Your task to perform on an android device: open app "DoorDash - Dasher" (install if not already installed) Image 0: 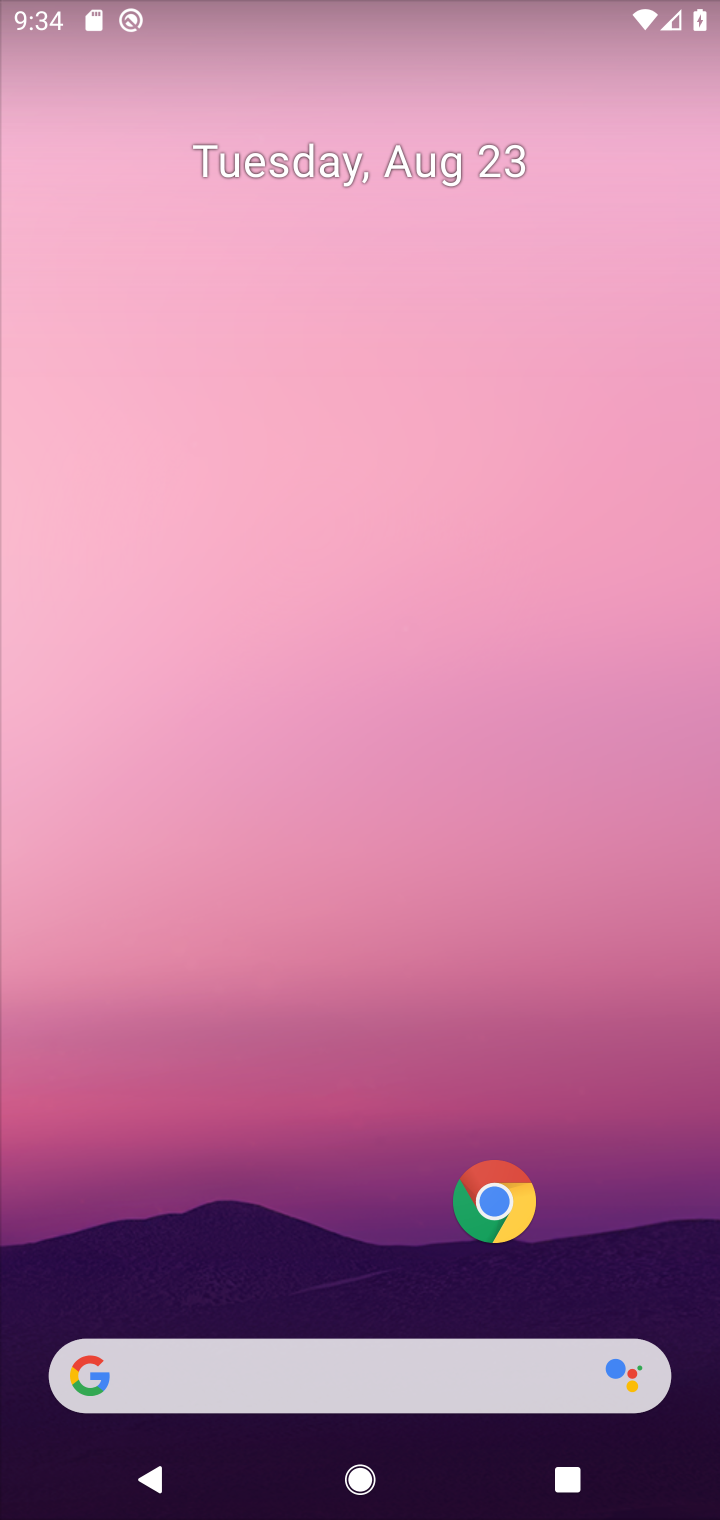
Step 0: drag from (225, 1292) to (229, 782)
Your task to perform on an android device: open app "DoorDash - Dasher" (install if not already installed) Image 1: 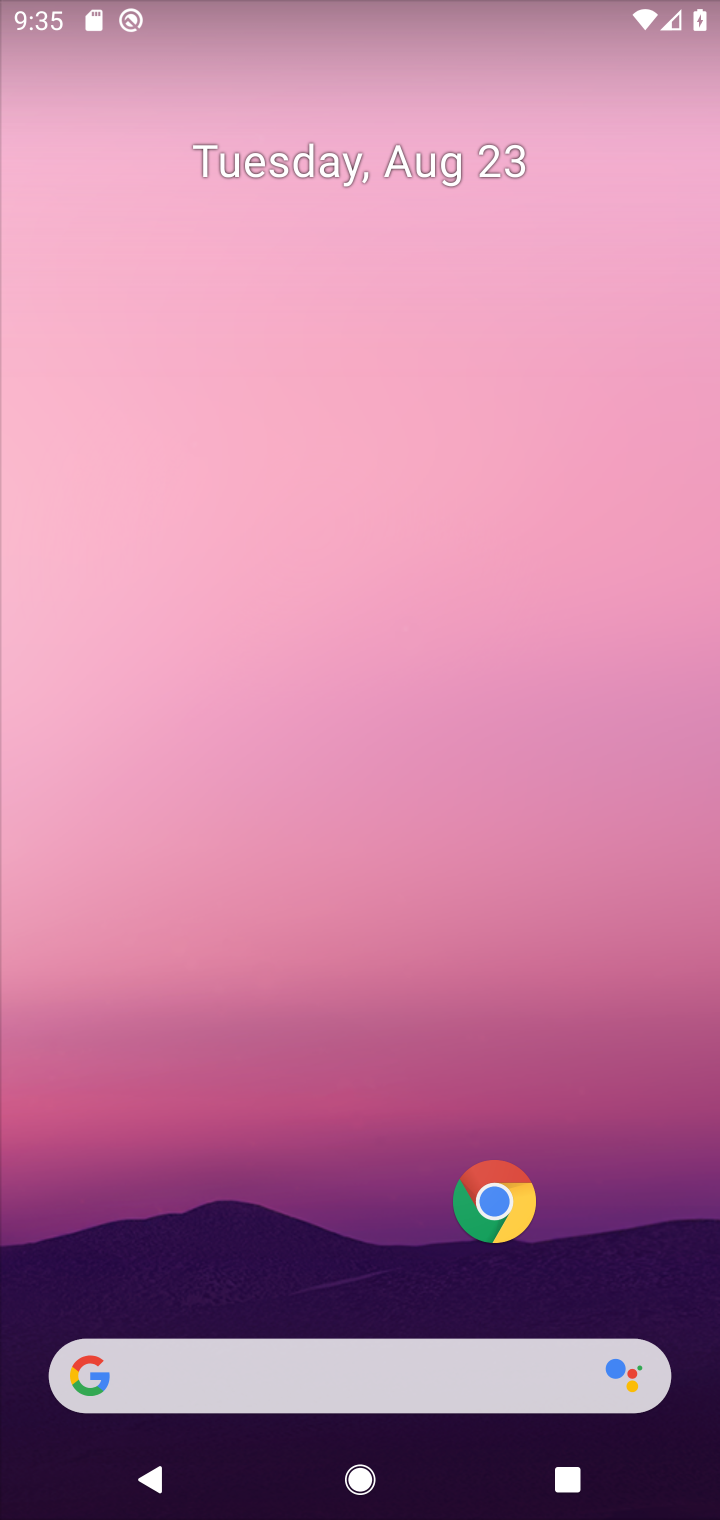
Step 1: drag from (313, 1293) to (337, 678)
Your task to perform on an android device: open app "DoorDash - Dasher" (install if not already installed) Image 2: 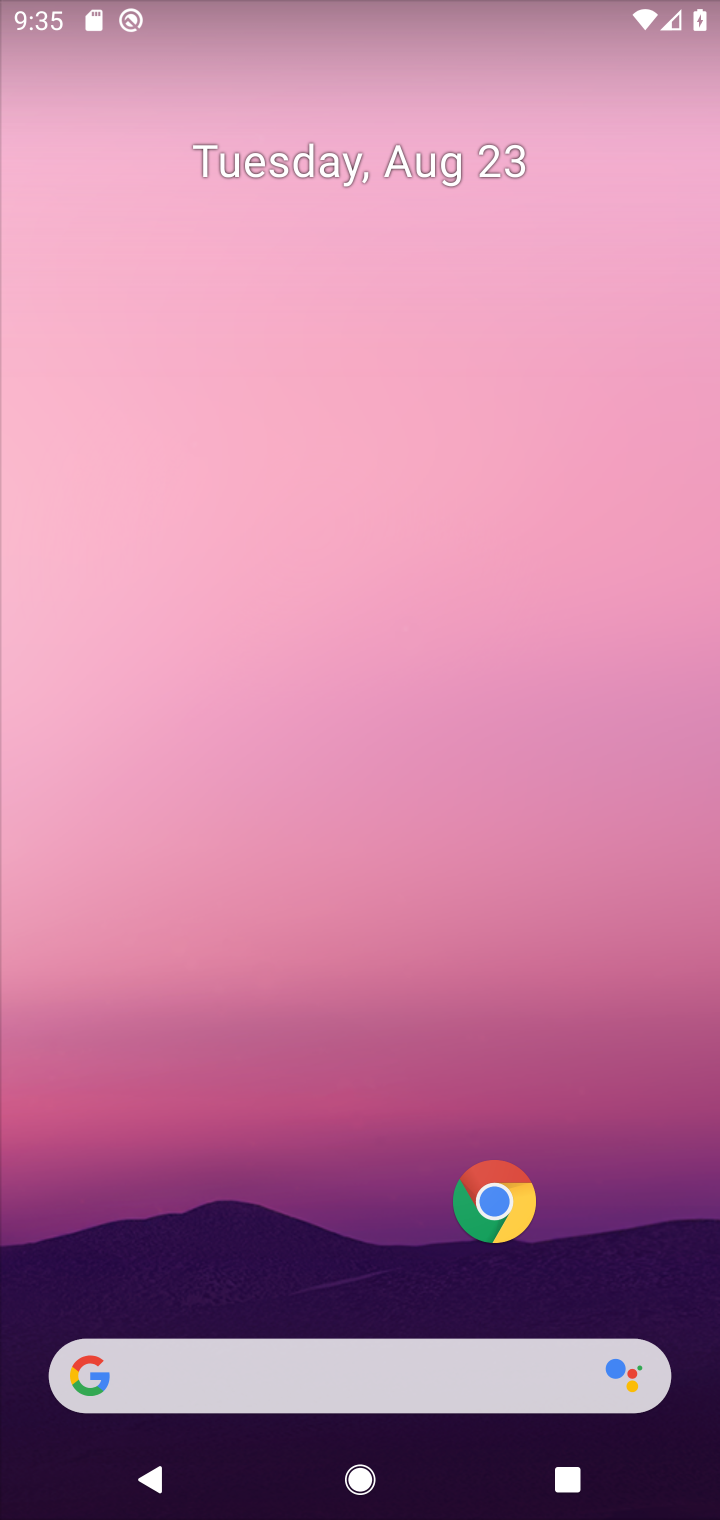
Step 2: drag from (315, 1346) to (346, 598)
Your task to perform on an android device: open app "DoorDash - Dasher" (install if not already installed) Image 3: 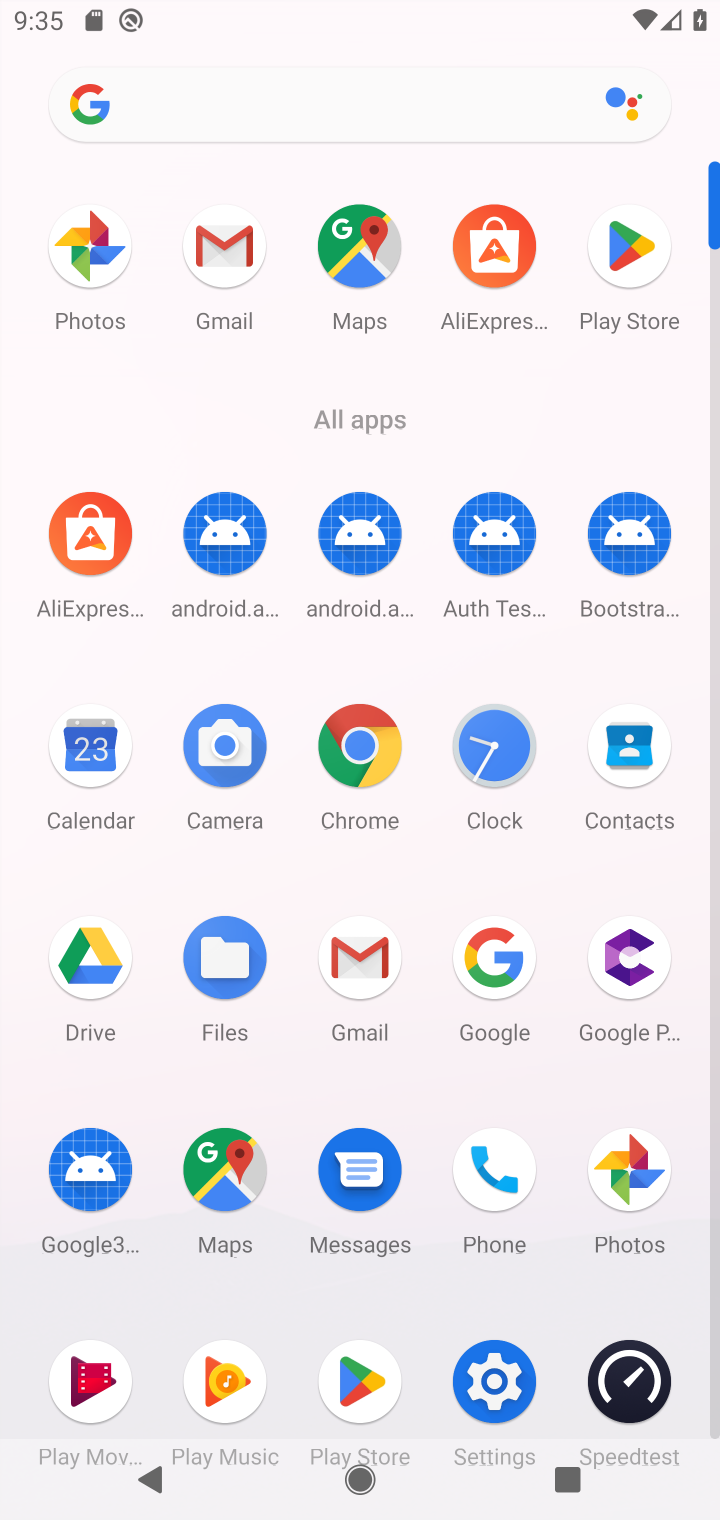
Step 3: click (636, 238)
Your task to perform on an android device: open app "DoorDash - Dasher" (install if not already installed) Image 4: 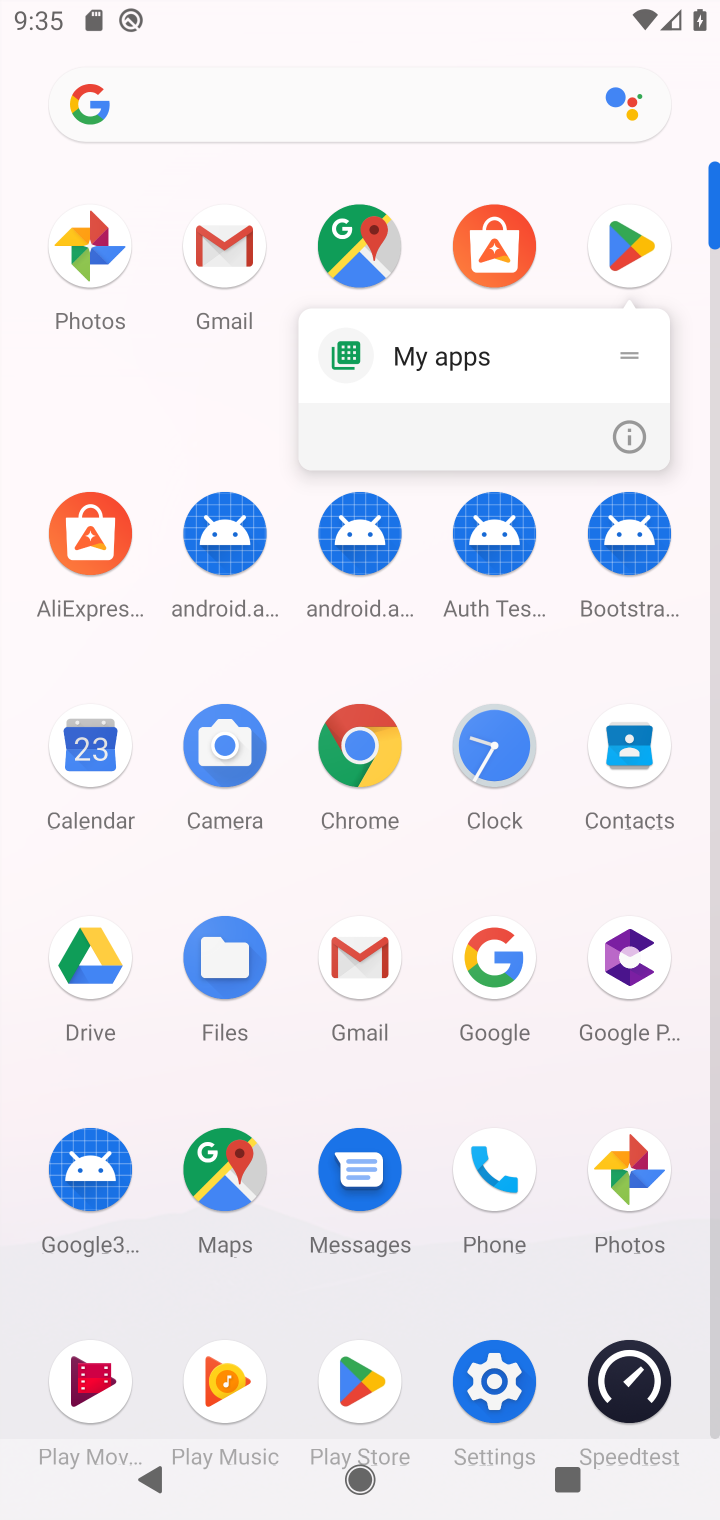
Step 4: click (636, 238)
Your task to perform on an android device: open app "DoorDash - Dasher" (install if not already installed) Image 5: 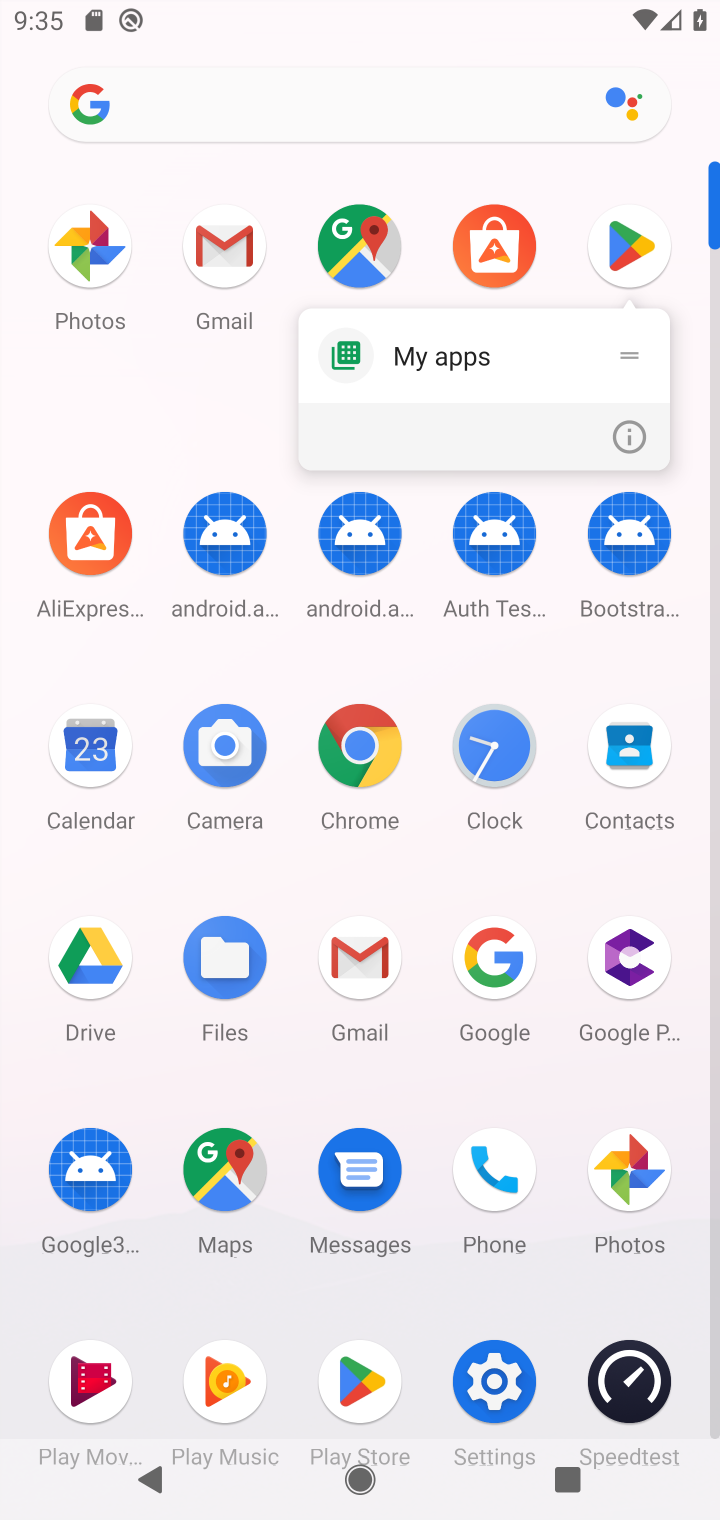
Step 5: click (636, 238)
Your task to perform on an android device: open app "DoorDash - Dasher" (install if not already installed) Image 6: 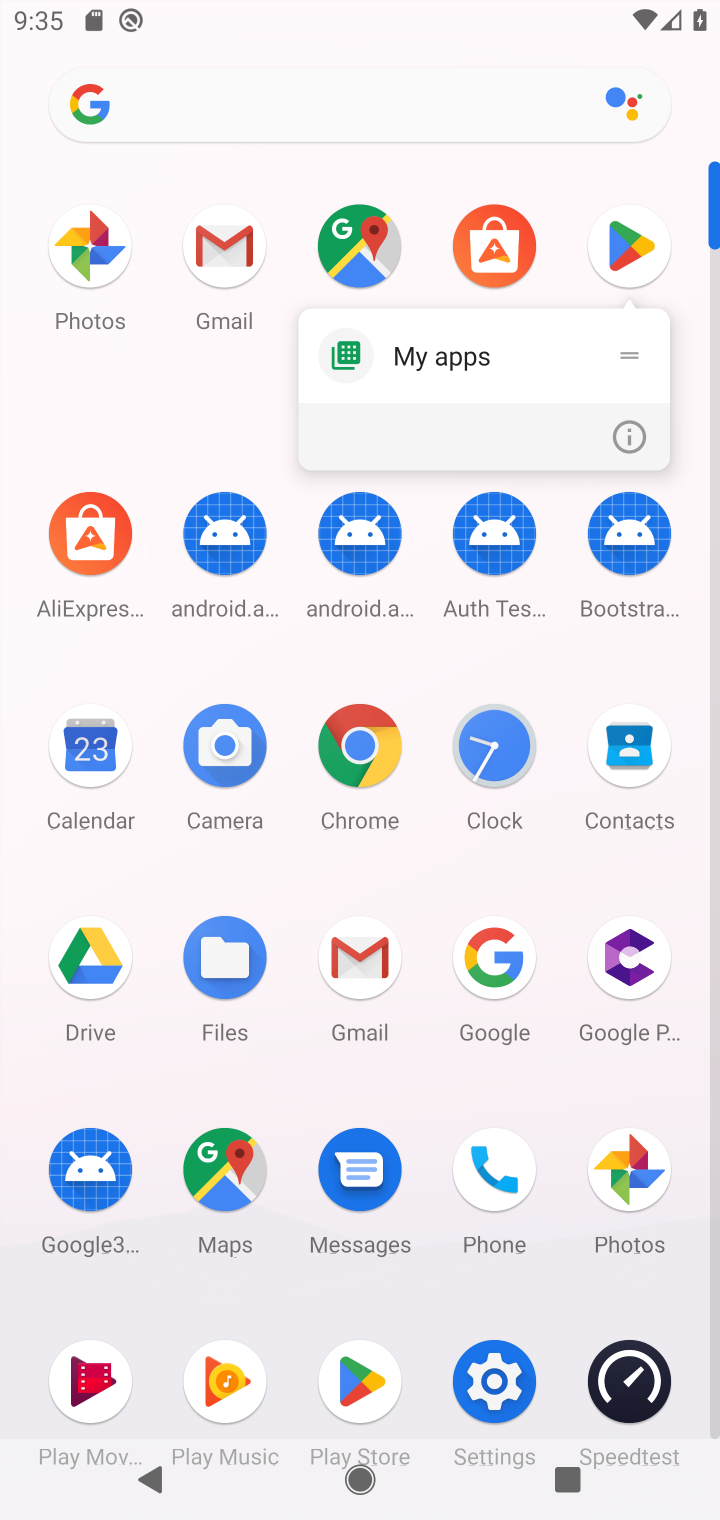
Step 6: click (601, 231)
Your task to perform on an android device: open app "DoorDash - Dasher" (install if not already installed) Image 7: 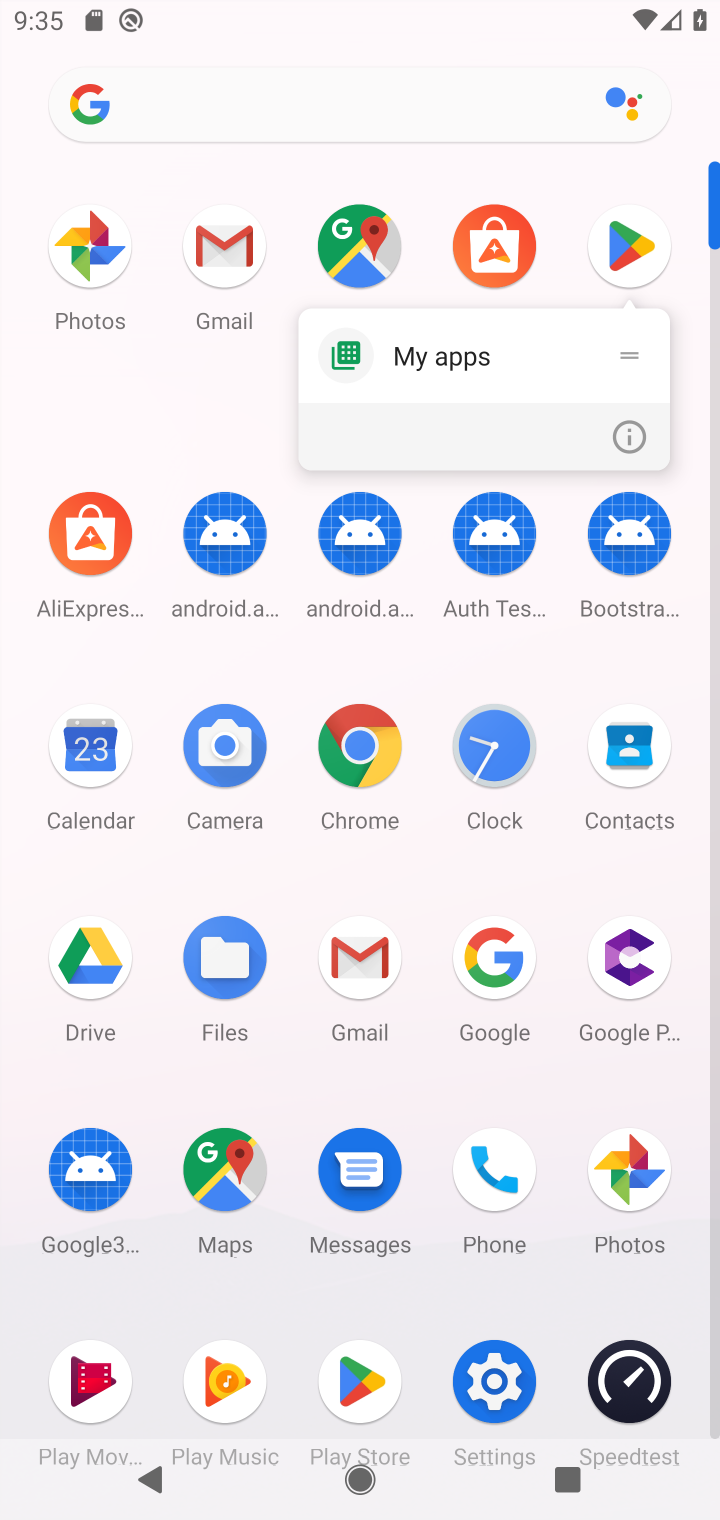
Step 7: click (598, 232)
Your task to perform on an android device: open app "DoorDash - Dasher" (install if not already installed) Image 8: 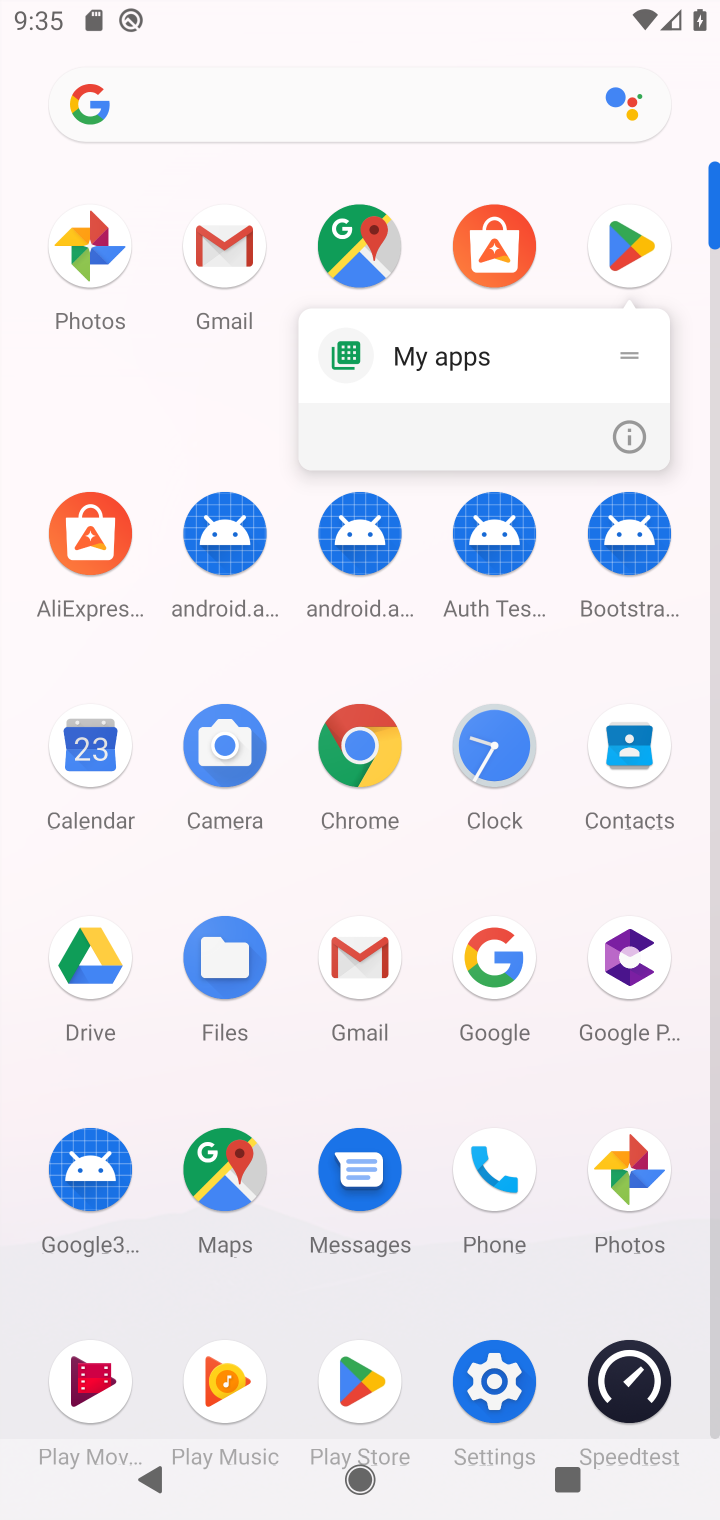
Step 8: click (374, 1352)
Your task to perform on an android device: open app "DoorDash - Dasher" (install if not already installed) Image 9: 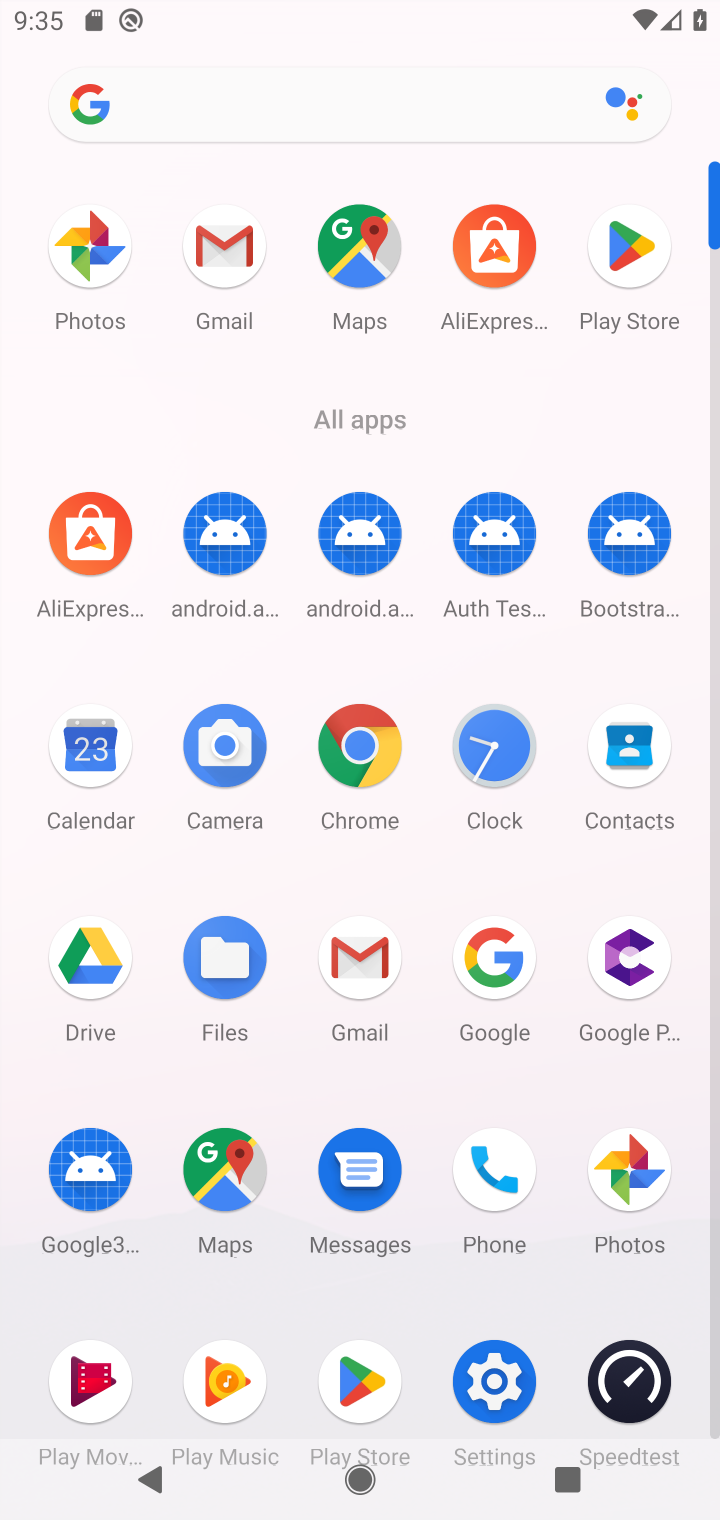
Step 9: click (337, 1391)
Your task to perform on an android device: open app "DoorDash - Dasher" (install if not already installed) Image 10: 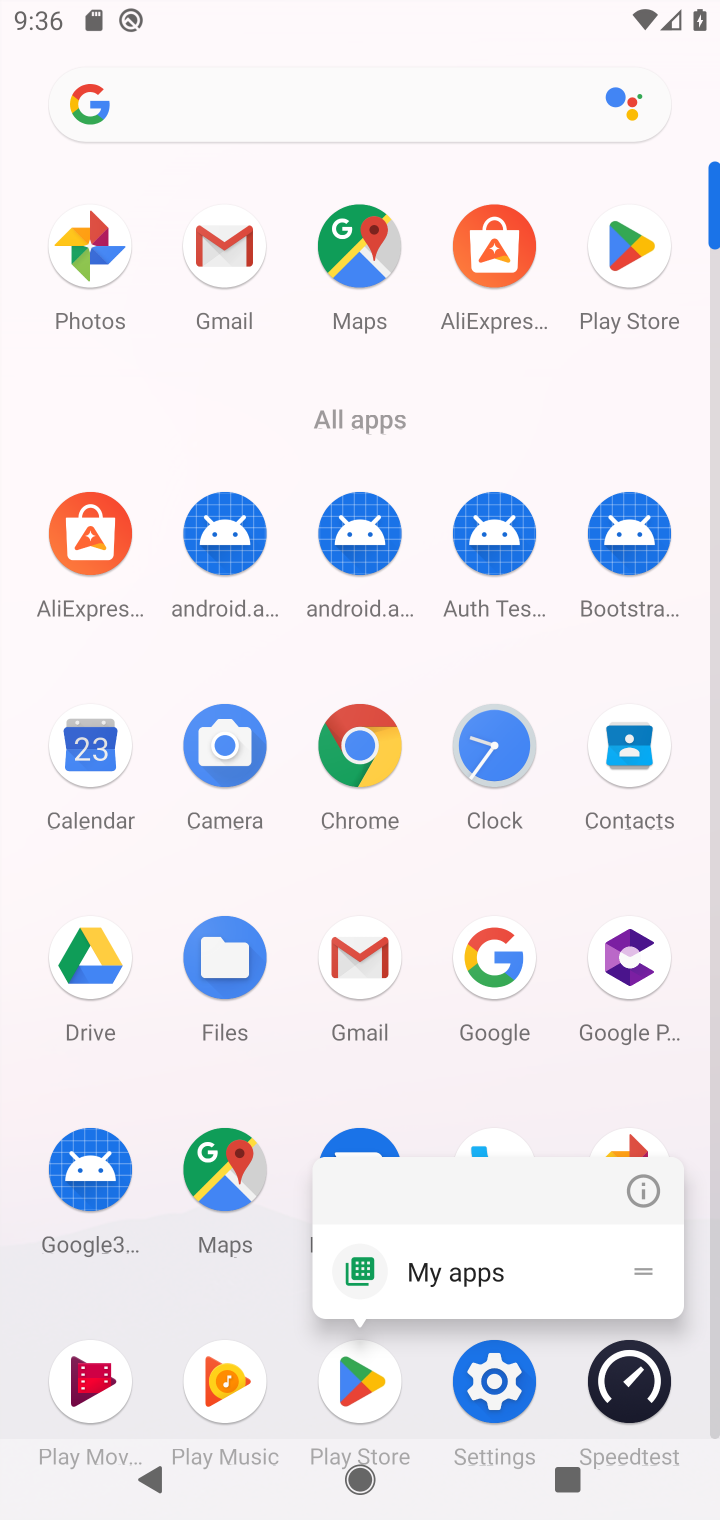
Step 10: click (362, 1354)
Your task to perform on an android device: open app "DoorDash - Dasher" (install if not already installed) Image 11: 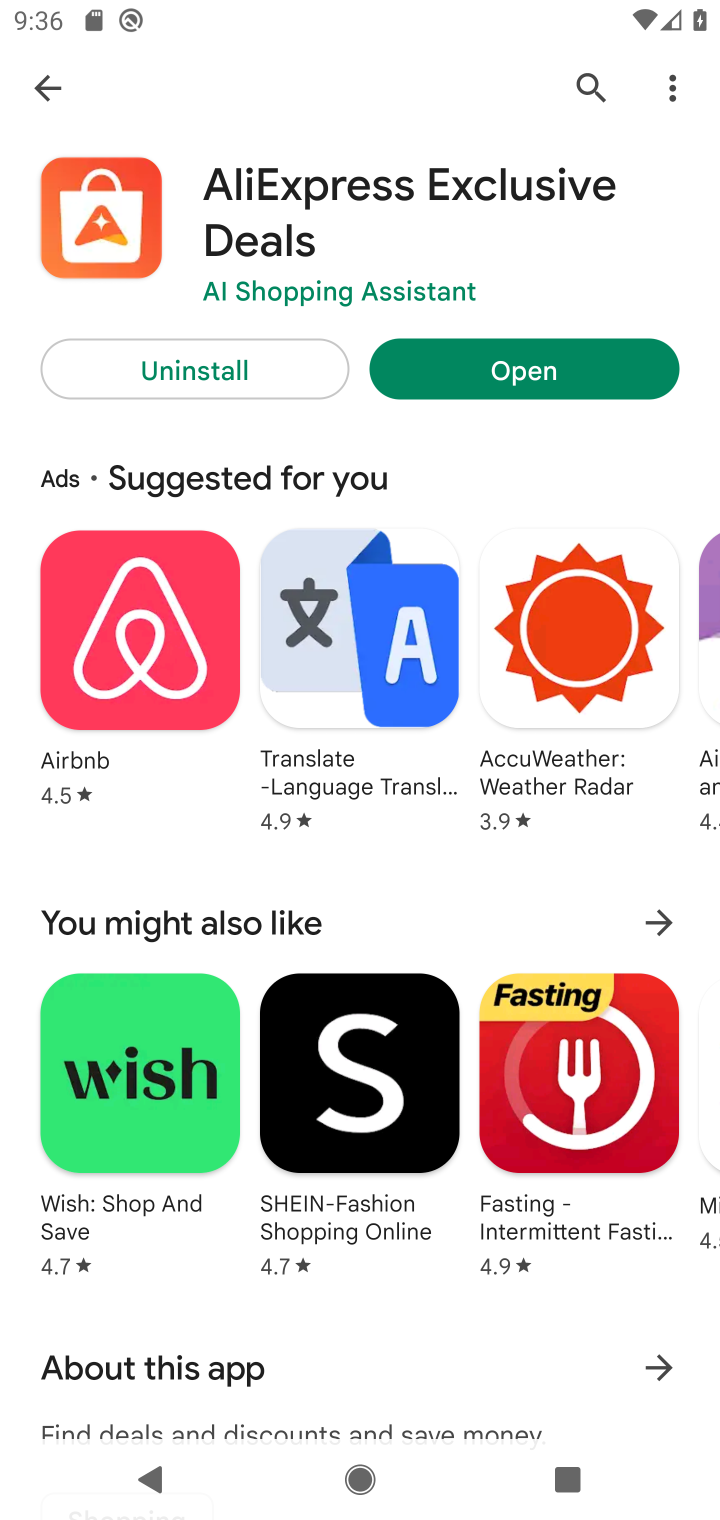
Step 11: click (57, 81)
Your task to perform on an android device: open app "DoorDash - Dasher" (install if not already installed) Image 12: 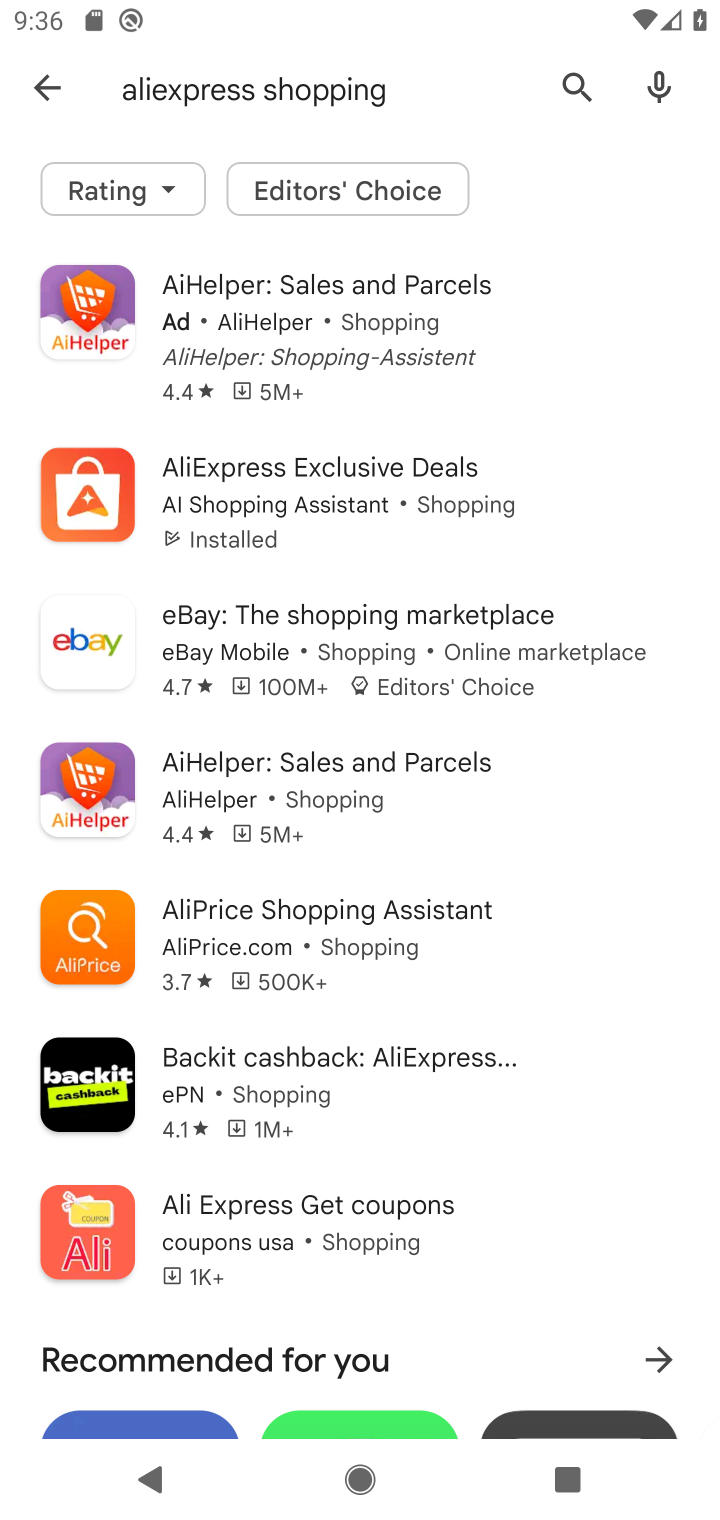
Step 12: click (38, 68)
Your task to perform on an android device: open app "DoorDash - Dasher" (install if not already installed) Image 13: 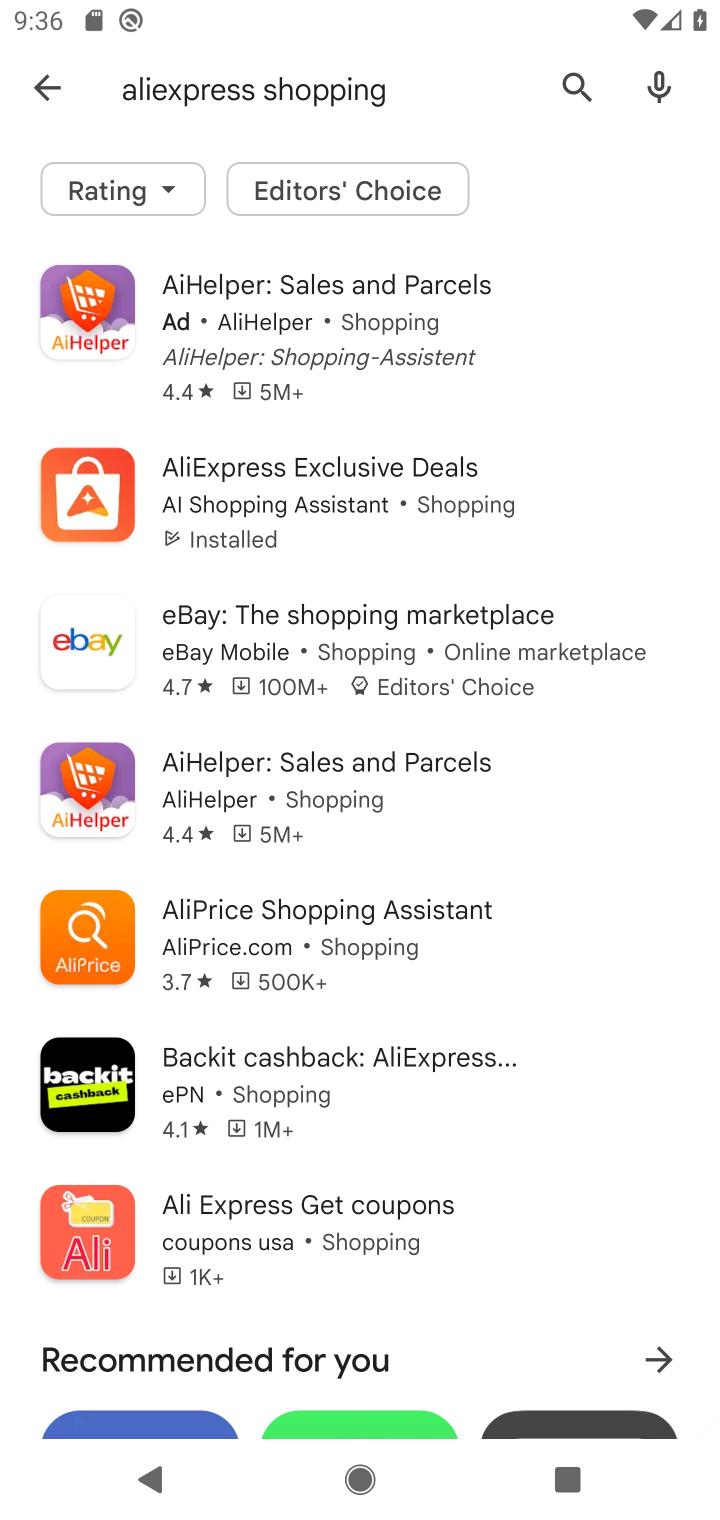
Step 13: click (65, 86)
Your task to perform on an android device: open app "DoorDash - Dasher" (install if not already installed) Image 14: 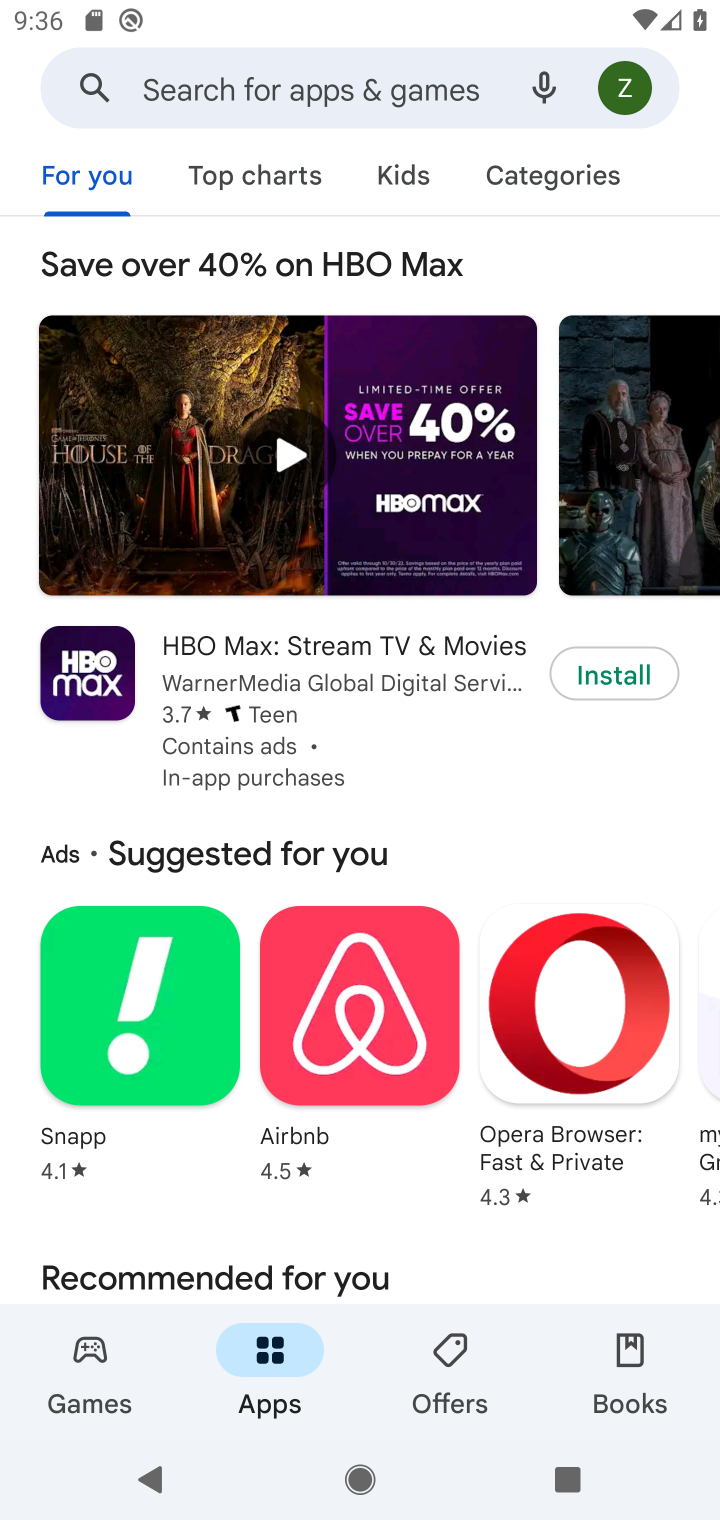
Step 14: click (189, 82)
Your task to perform on an android device: open app "DoorDash - Dasher" (install if not already installed) Image 15: 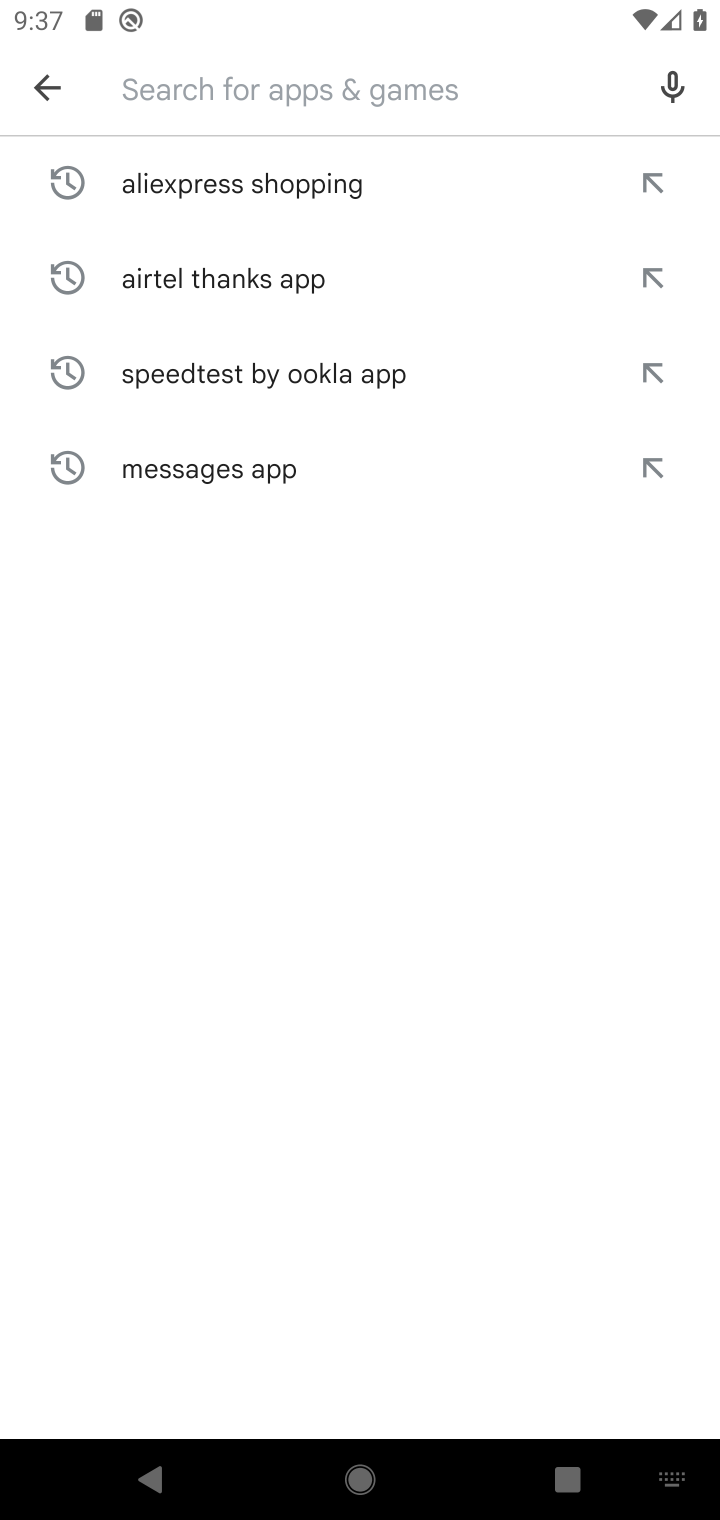
Step 15: click (338, 95)
Your task to perform on an android device: open app "DoorDash - Dasher" (install if not already installed) Image 16: 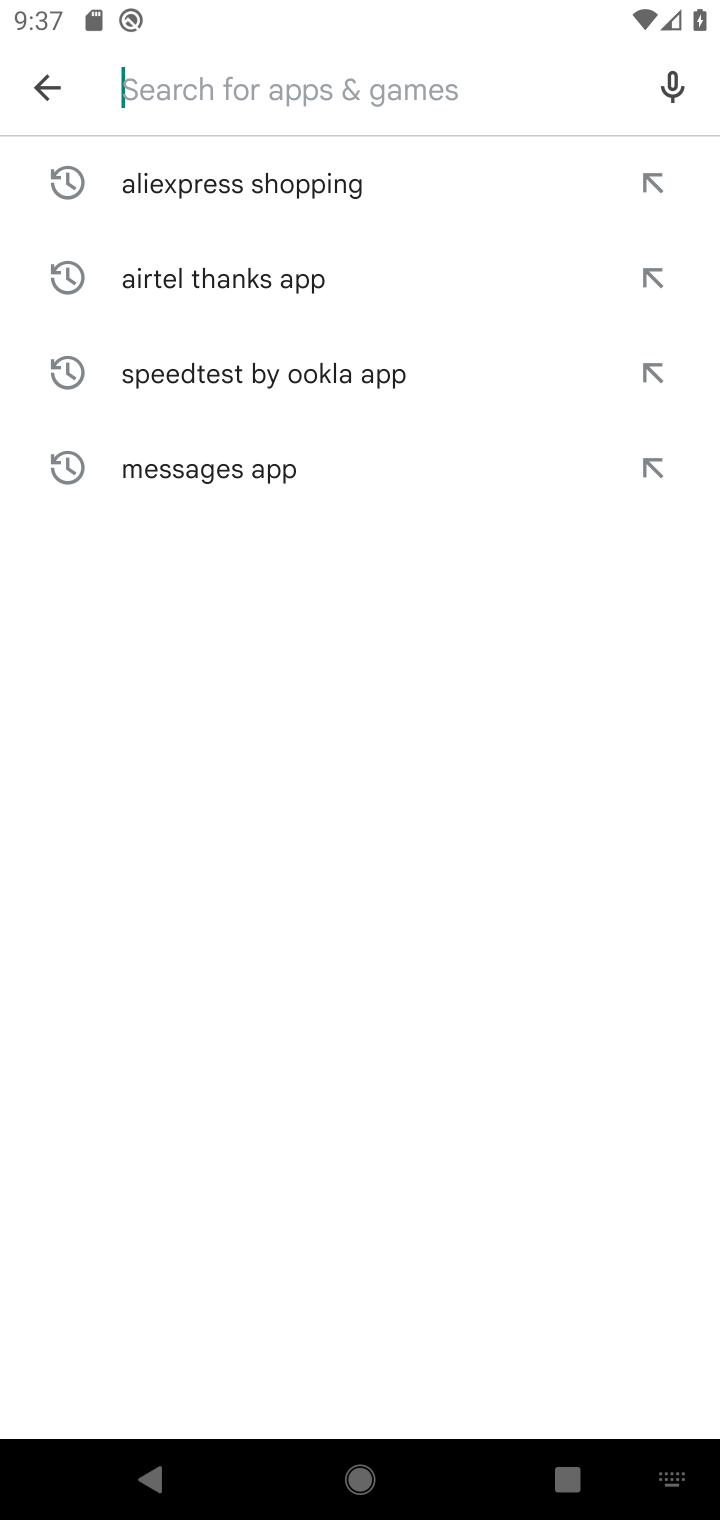
Step 16: type "DoorDash - Dasher "
Your task to perform on an android device: open app "DoorDash - Dasher" (install if not already installed) Image 17: 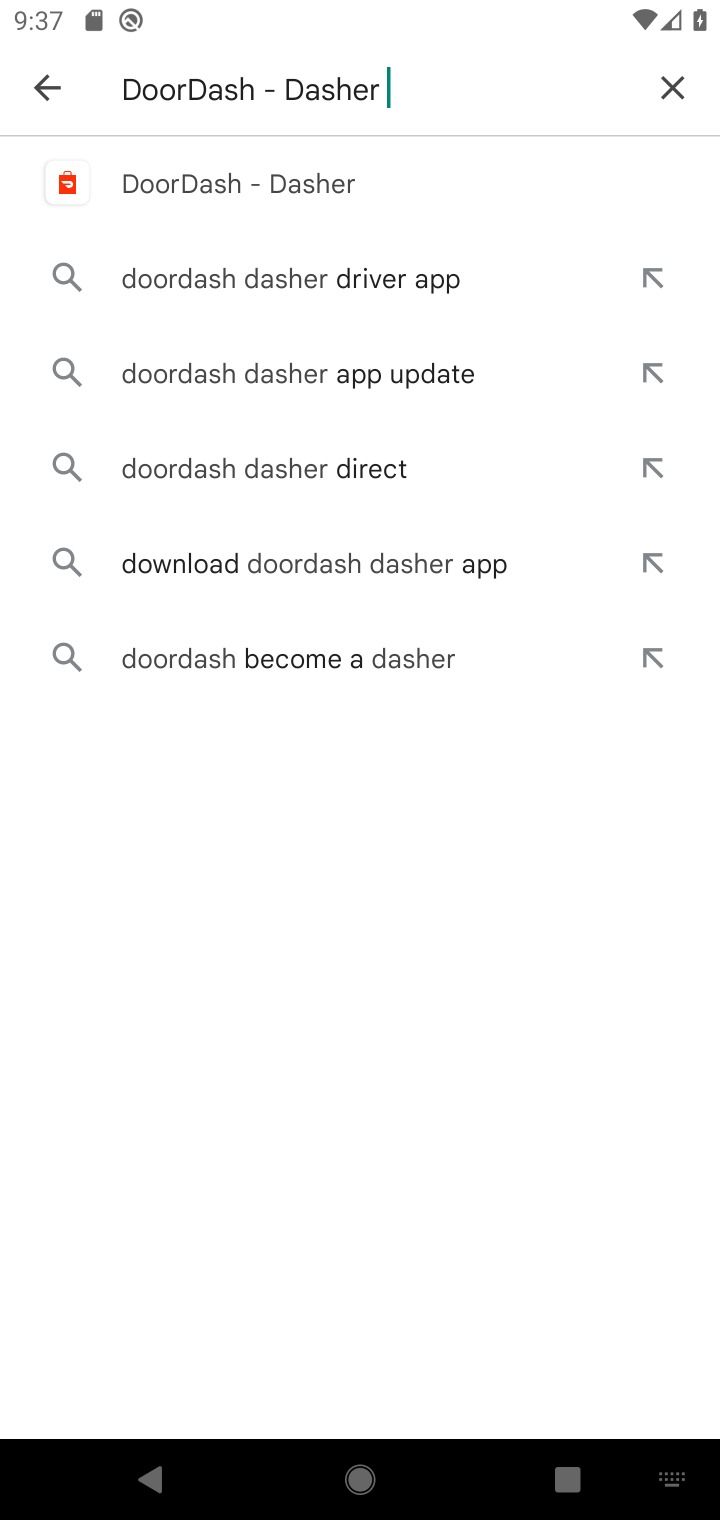
Step 17: click (94, 194)
Your task to perform on an android device: open app "DoorDash - Dasher" (install if not already installed) Image 18: 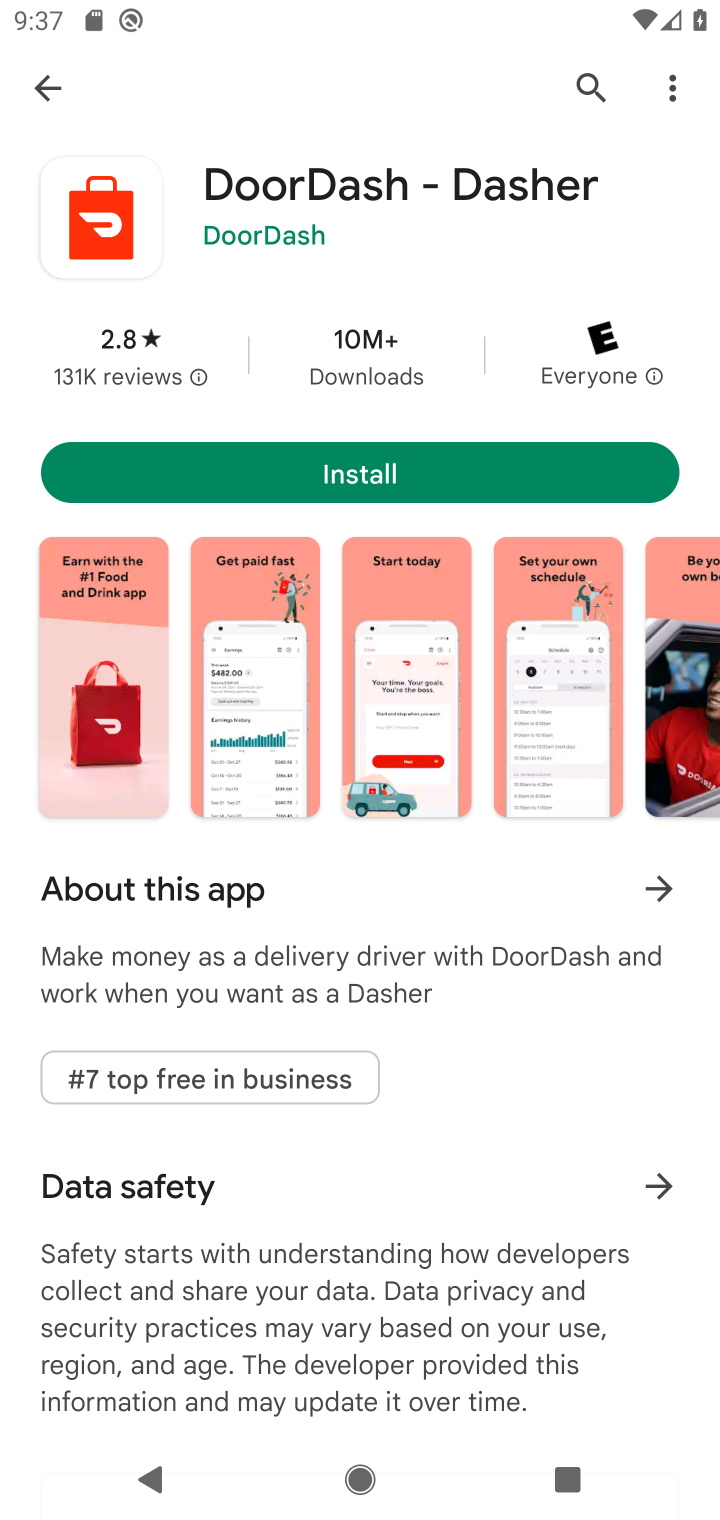
Step 18: click (424, 462)
Your task to perform on an android device: open app "DoorDash - Dasher" (install if not already installed) Image 19: 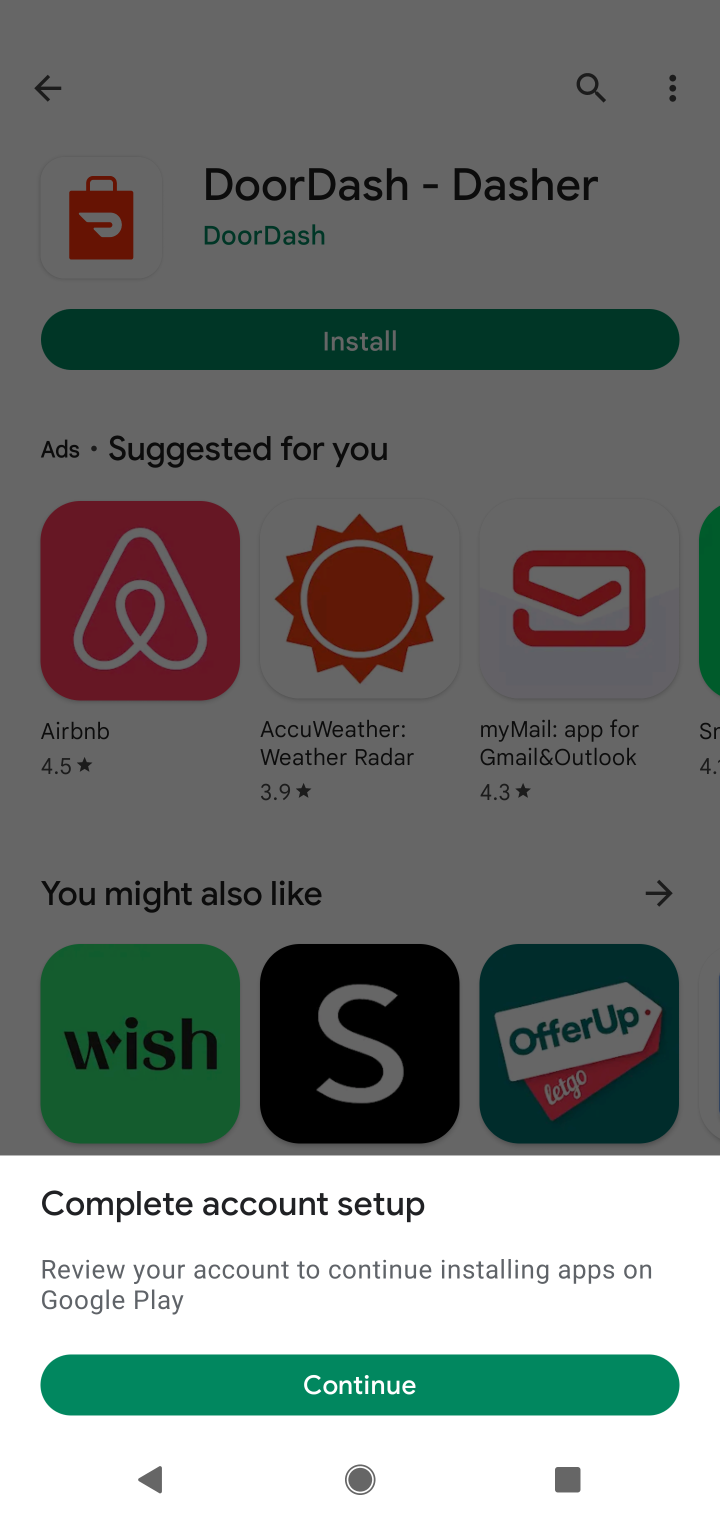
Step 19: task complete